Your task to perform on an android device: turn vacation reply on in the gmail app Image 0: 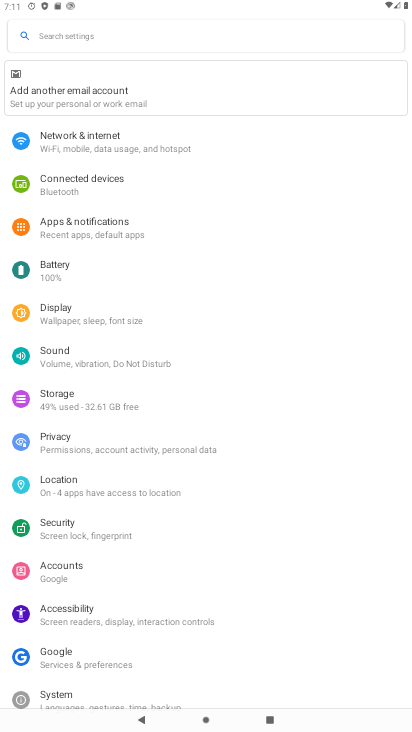
Step 0: press home button
Your task to perform on an android device: turn vacation reply on in the gmail app Image 1: 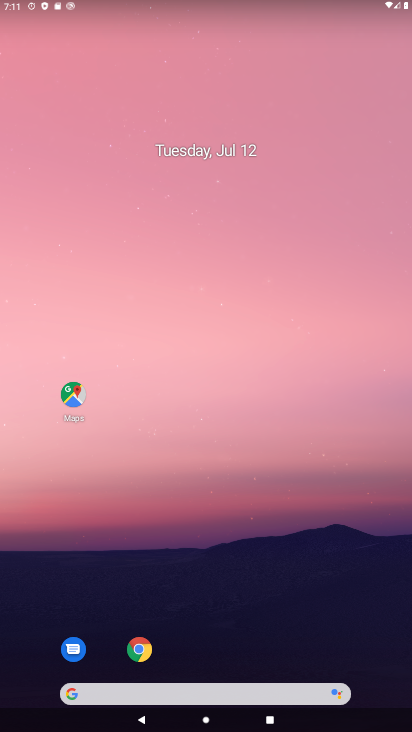
Step 1: drag from (196, 693) to (227, 256)
Your task to perform on an android device: turn vacation reply on in the gmail app Image 2: 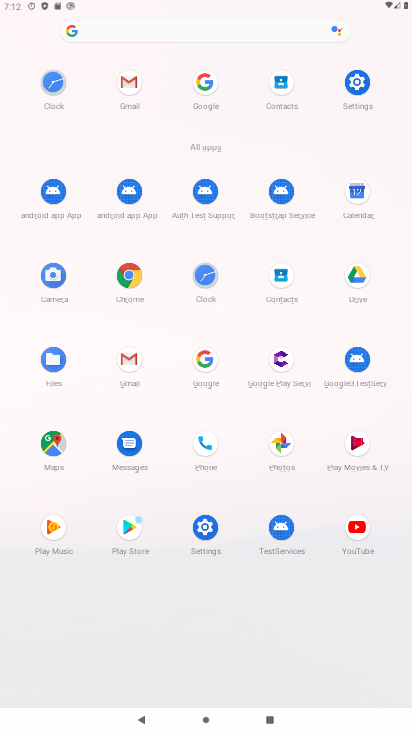
Step 2: click (129, 82)
Your task to perform on an android device: turn vacation reply on in the gmail app Image 3: 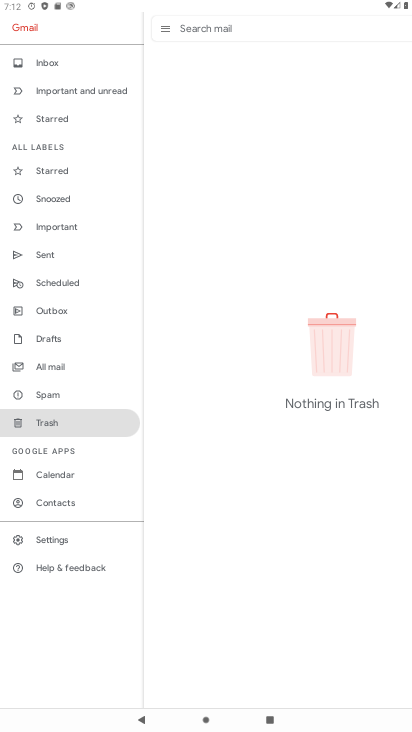
Step 3: click (50, 538)
Your task to perform on an android device: turn vacation reply on in the gmail app Image 4: 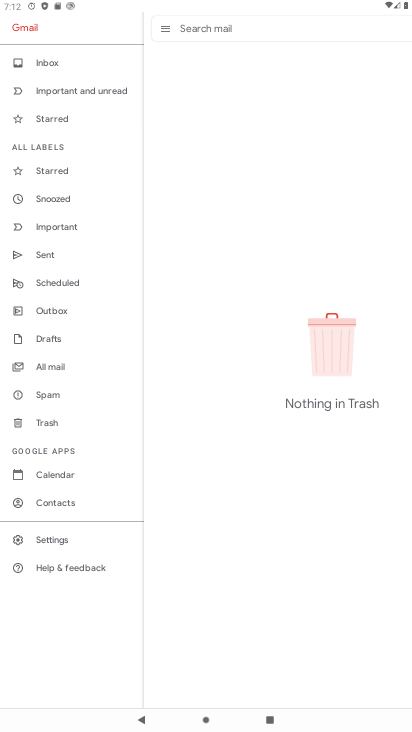
Step 4: click (50, 538)
Your task to perform on an android device: turn vacation reply on in the gmail app Image 5: 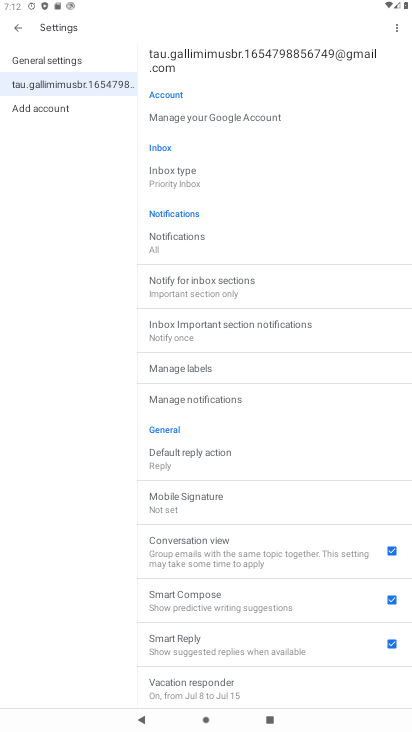
Step 5: click (221, 686)
Your task to perform on an android device: turn vacation reply on in the gmail app Image 6: 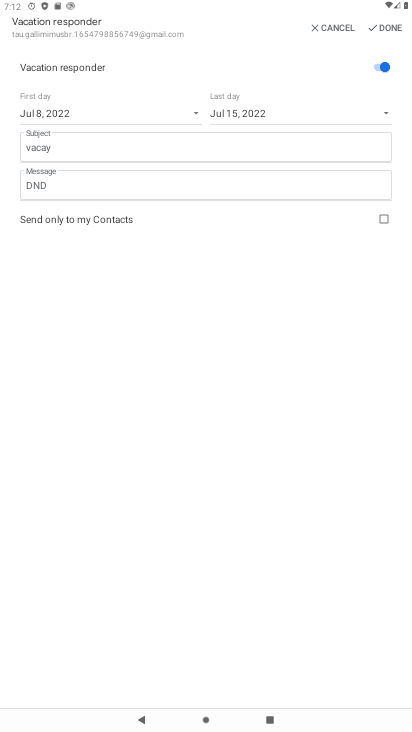
Step 6: task complete